Your task to perform on an android device: toggle javascript in the chrome app Image 0: 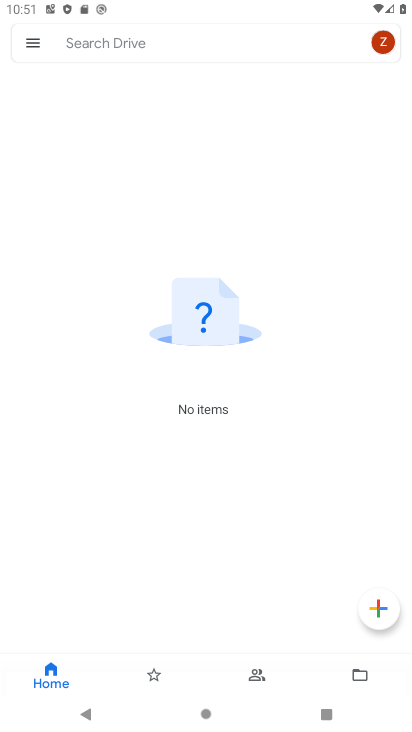
Step 0: press home button
Your task to perform on an android device: toggle javascript in the chrome app Image 1: 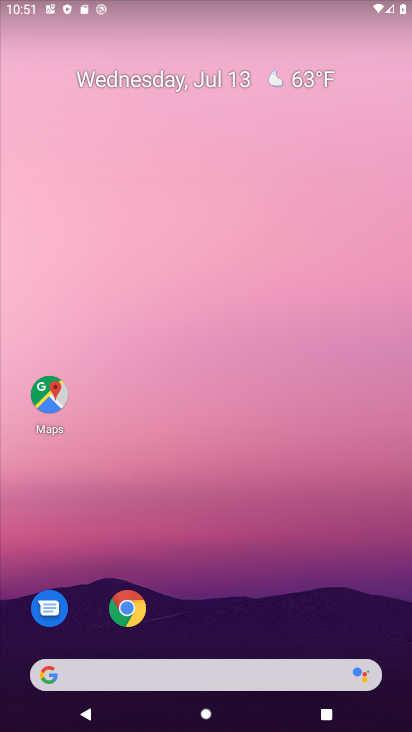
Step 1: drag from (262, 611) to (298, 5)
Your task to perform on an android device: toggle javascript in the chrome app Image 2: 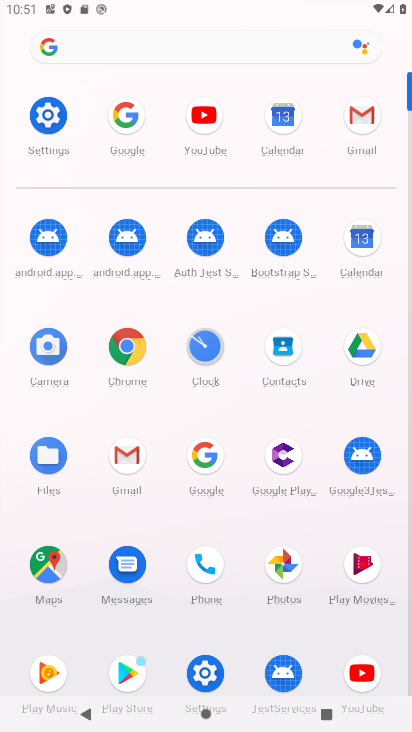
Step 2: click (129, 349)
Your task to perform on an android device: toggle javascript in the chrome app Image 3: 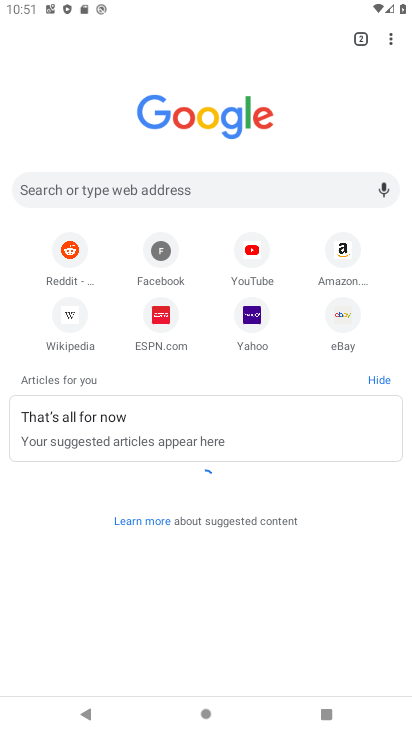
Step 3: drag from (389, 37) to (272, 328)
Your task to perform on an android device: toggle javascript in the chrome app Image 4: 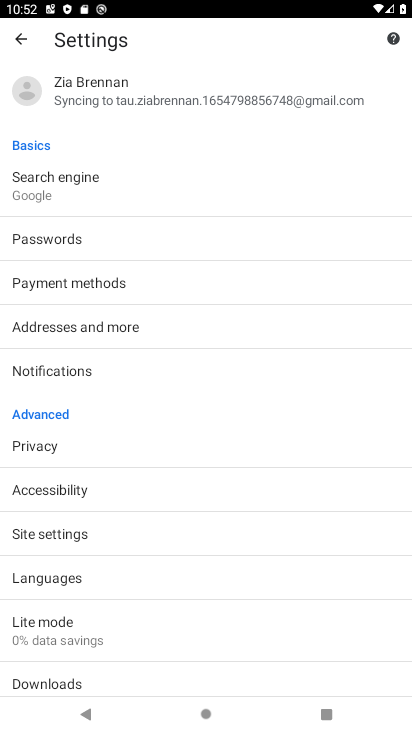
Step 4: click (78, 539)
Your task to perform on an android device: toggle javascript in the chrome app Image 5: 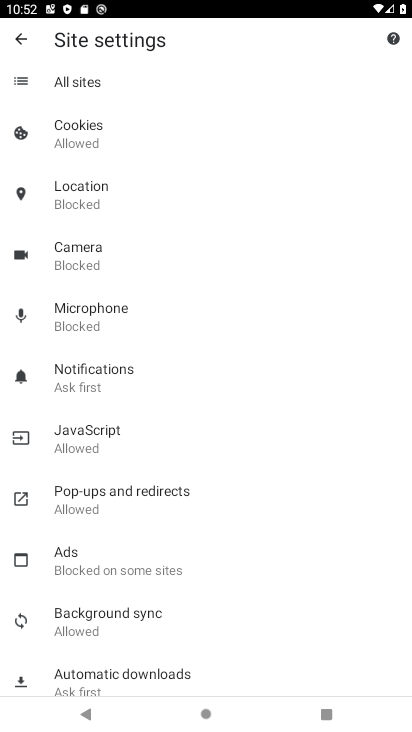
Step 5: click (91, 440)
Your task to perform on an android device: toggle javascript in the chrome app Image 6: 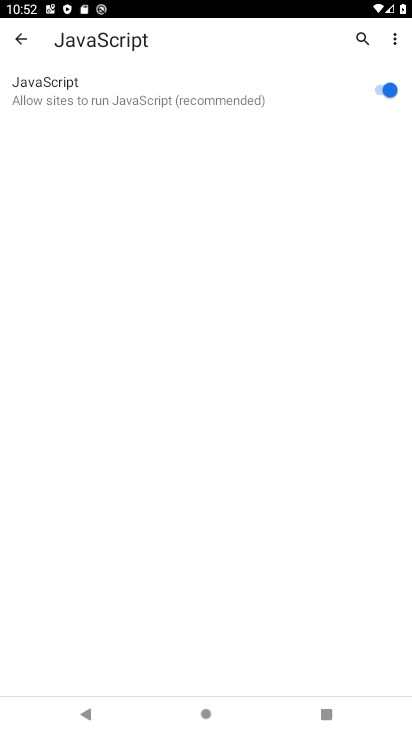
Step 6: click (392, 91)
Your task to perform on an android device: toggle javascript in the chrome app Image 7: 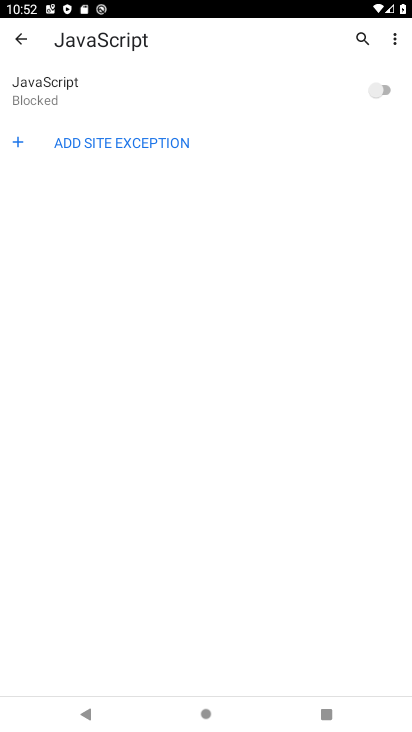
Step 7: task complete